Your task to perform on an android device: open app "Gmail" (install if not already installed) and enter user name: "undecidable@inbox.com" and password: "discouraging" Image 0: 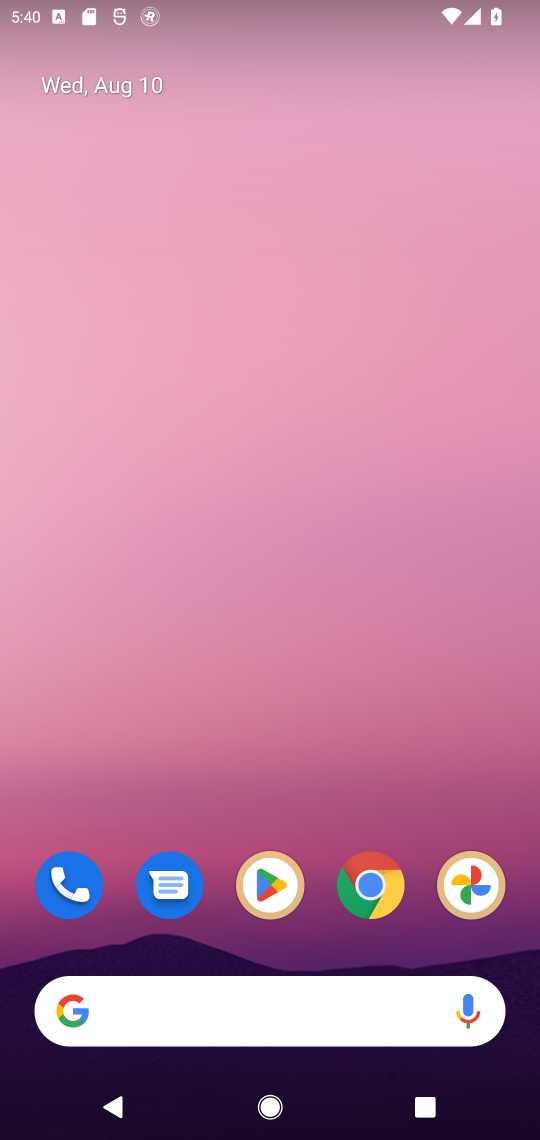
Step 0: drag from (185, 897) to (365, 141)
Your task to perform on an android device: open app "Gmail" (install if not already installed) and enter user name: "undecidable@inbox.com" and password: "discouraging" Image 1: 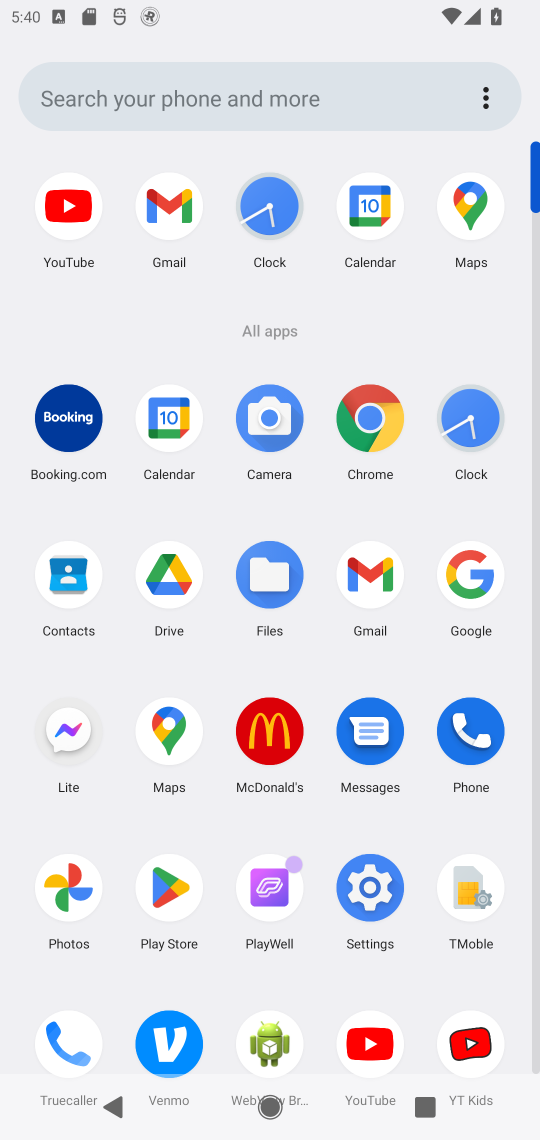
Step 1: click (147, 207)
Your task to perform on an android device: open app "Gmail" (install if not already installed) and enter user name: "undecidable@inbox.com" and password: "discouraging" Image 2: 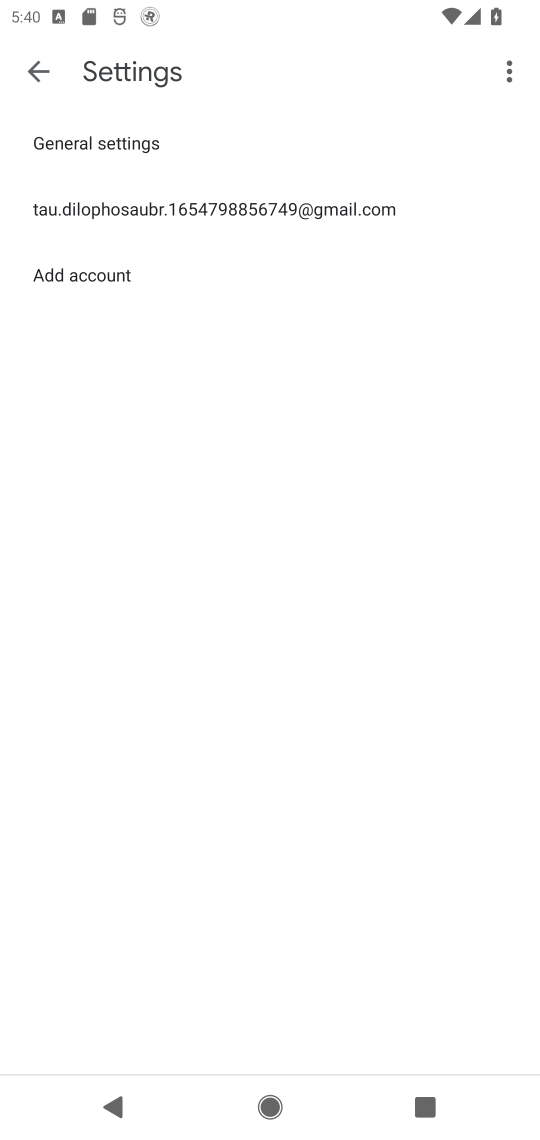
Step 2: click (77, 272)
Your task to perform on an android device: open app "Gmail" (install if not already installed) and enter user name: "undecidable@inbox.com" and password: "discouraging" Image 3: 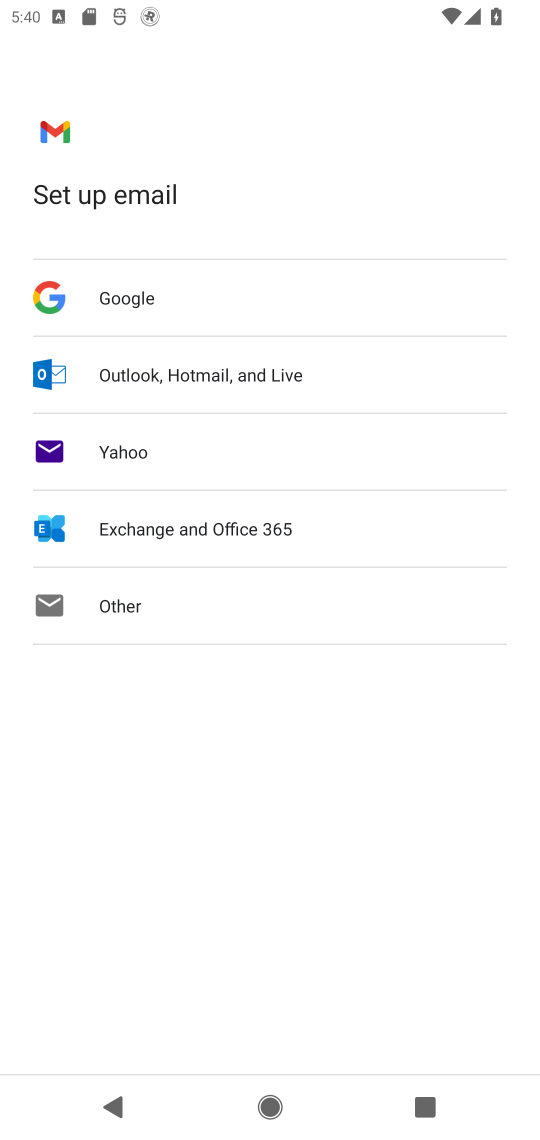
Step 3: click (146, 293)
Your task to perform on an android device: open app "Gmail" (install if not already installed) and enter user name: "undecidable@inbox.com" and password: "discouraging" Image 4: 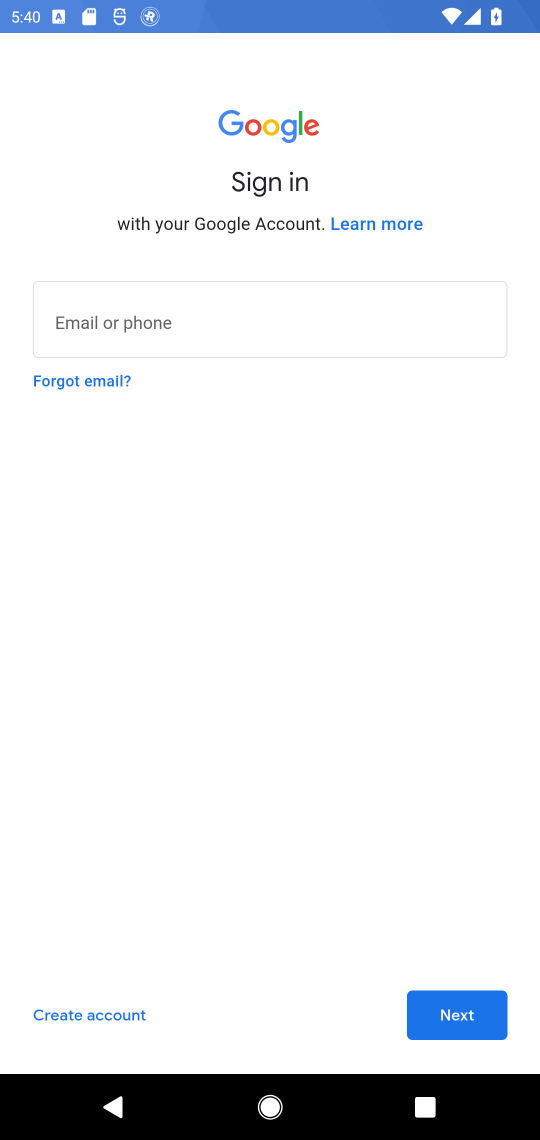
Step 4: click (111, 321)
Your task to perform on an android device: open app "Gmail" (install if not already installed) and enter user name: "undecidable@inbox.com" and password: "discouraging" Image 5: 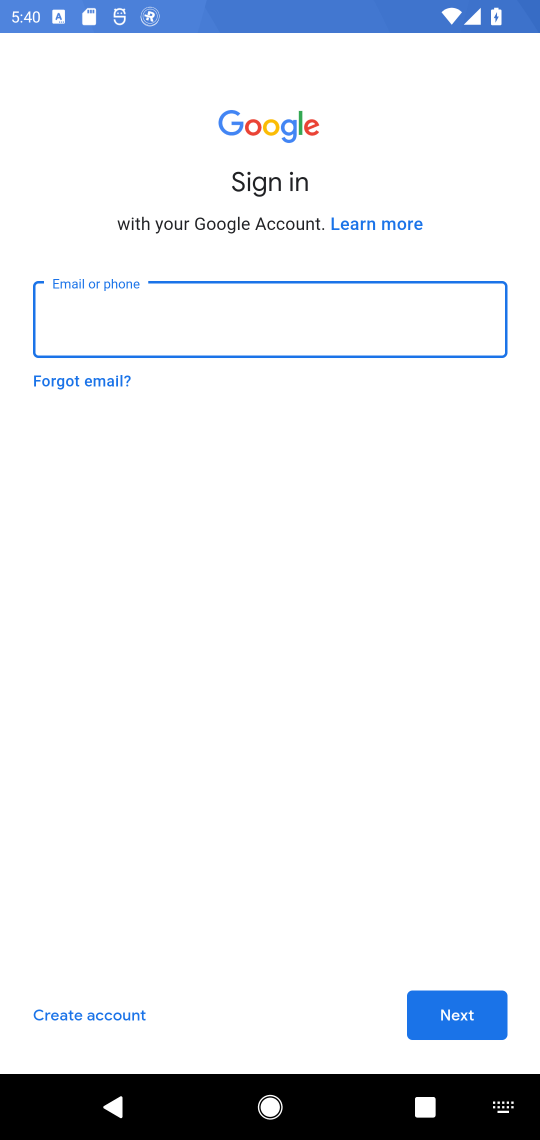
Step 5: type "undecidable@inbox.com"
Your task to perform on an android device: open app "Gmail" (install if not already installed) and enter user name: "undecidable@inbox.com" and password: "discouraging" Image 6: 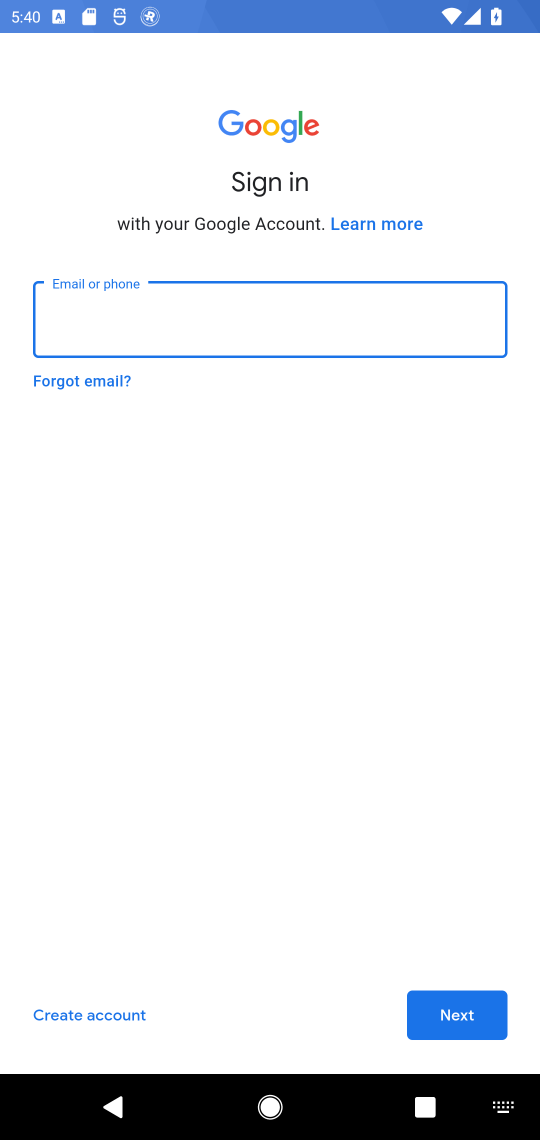
Step 6: click (431, 527)
Your task to perform on an android device: open app "Gmail" (install if not already installed) and enter user name: "undecidable@inbox.com" and password: "discouraging" Image 7: 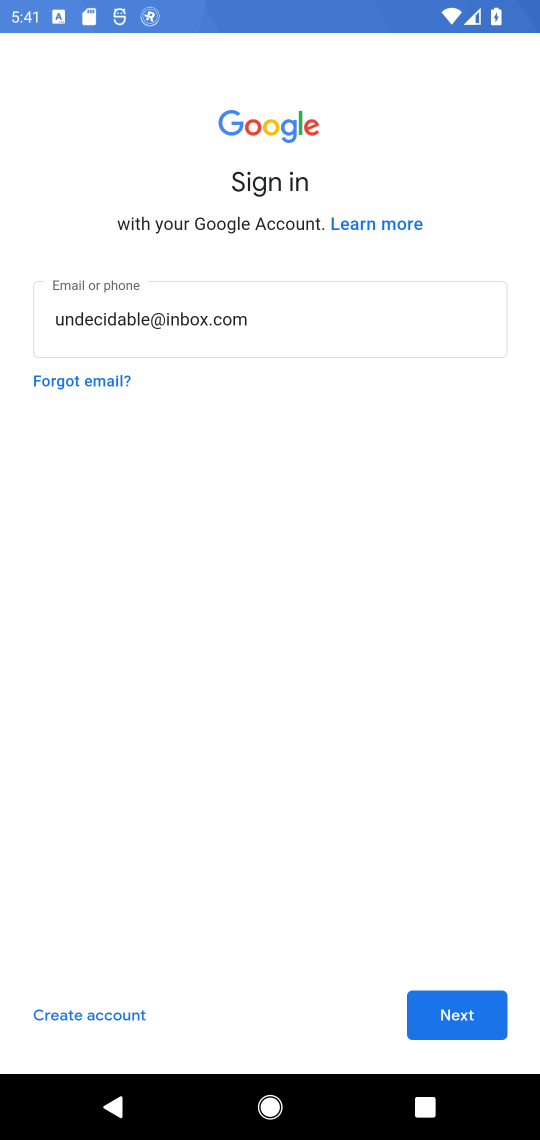
Step 7: click (427, 1017)
Your task to perform on an android device: open app "Gmail" (install if not already installed) and enter user name: "undecidable@inbox.com" and password: "discouraging" Image 8: 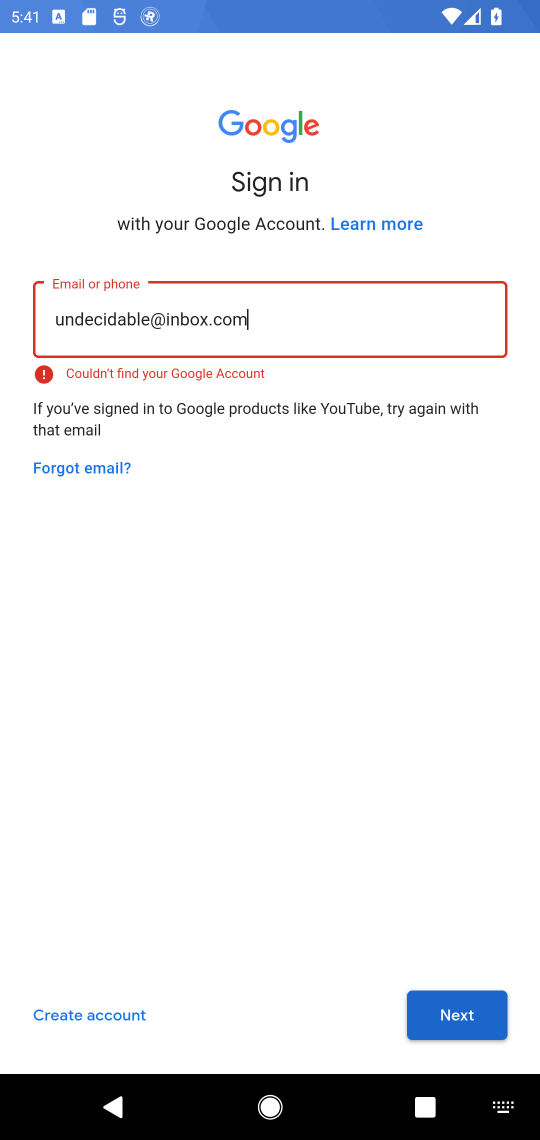
Step 8: task complete